Your task to perform on an android device: What's the weather going to be tomorrow? Image 0: 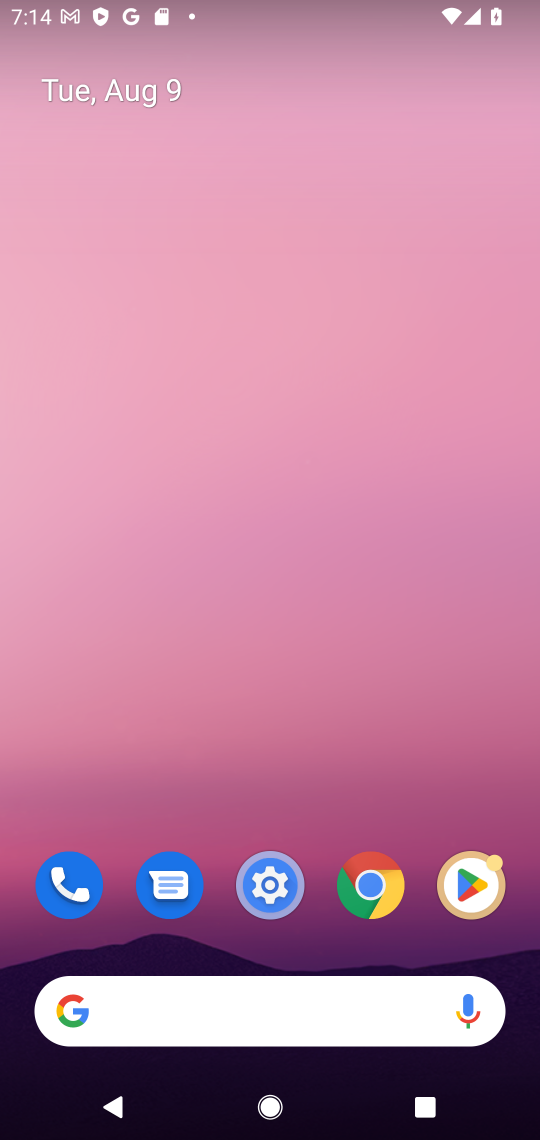
Step 0: drag from (312, 669) to (358, 21)
Your task to perform on an android device: What's the weather going to be tomorrow? Image 1: 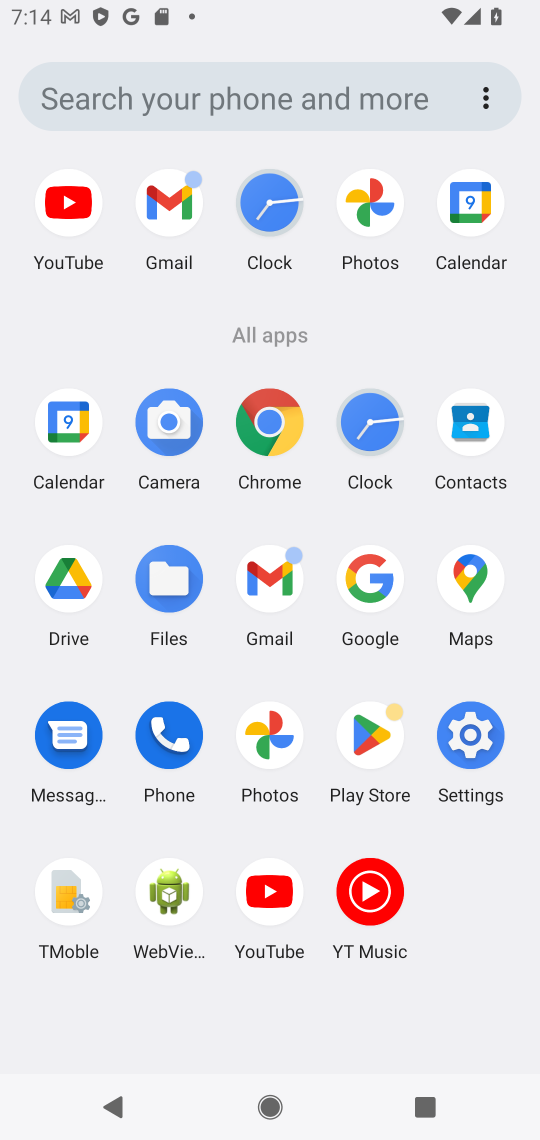
Step 1: click (236, 1139)
Your task to perform on an android device: What's the weather going to be tomorrow? Image 2: 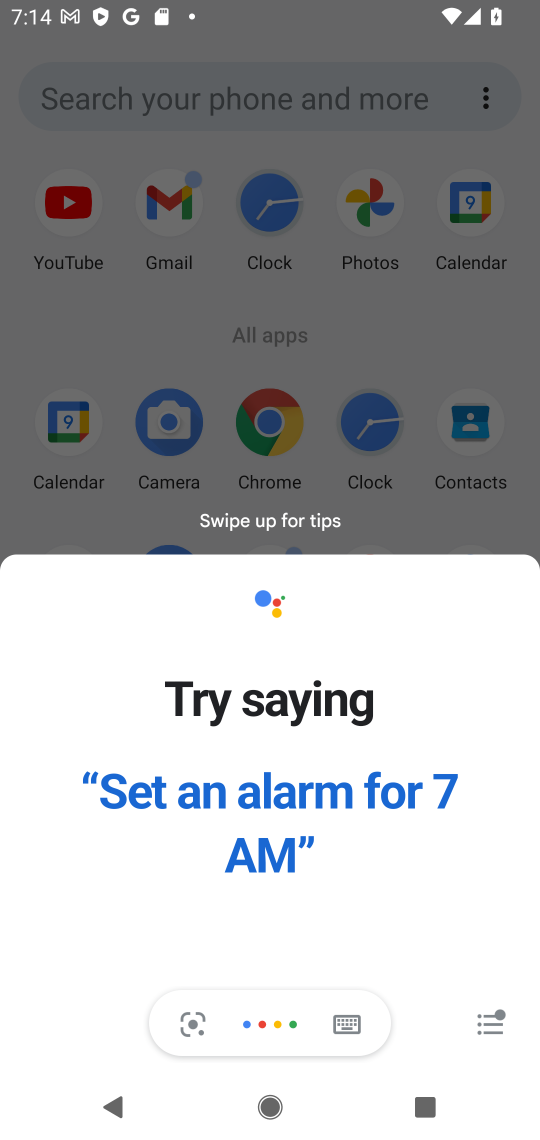
Step 2: click (270, 417)
Your task to perform on an android device: What's the weather going to be tomorrow? Image 3: 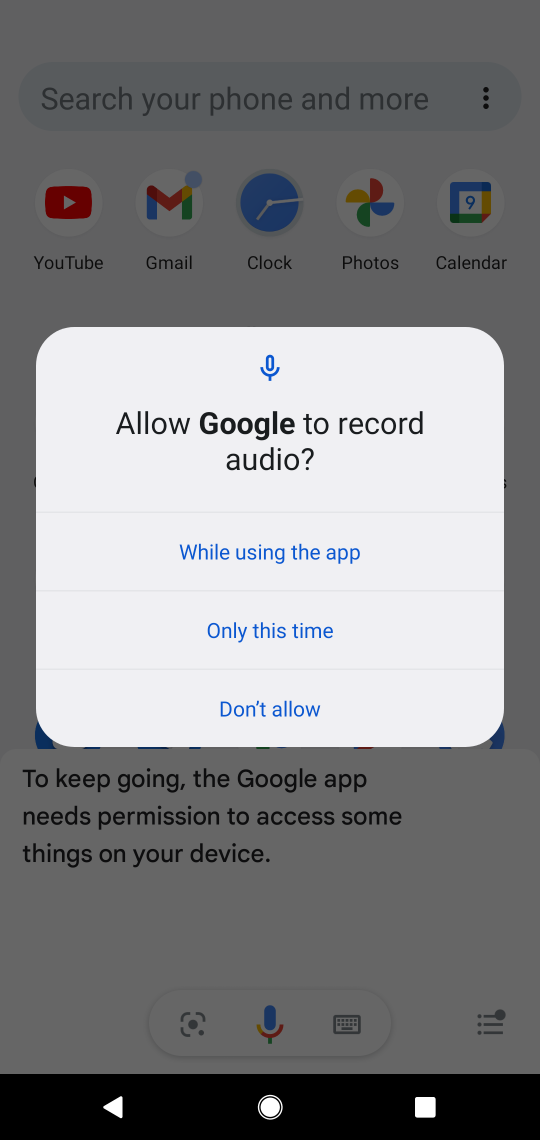
Step 3: click (270, 417)
Your task to perform on an android device: What's the weather going to be tomorrow? Image 4: 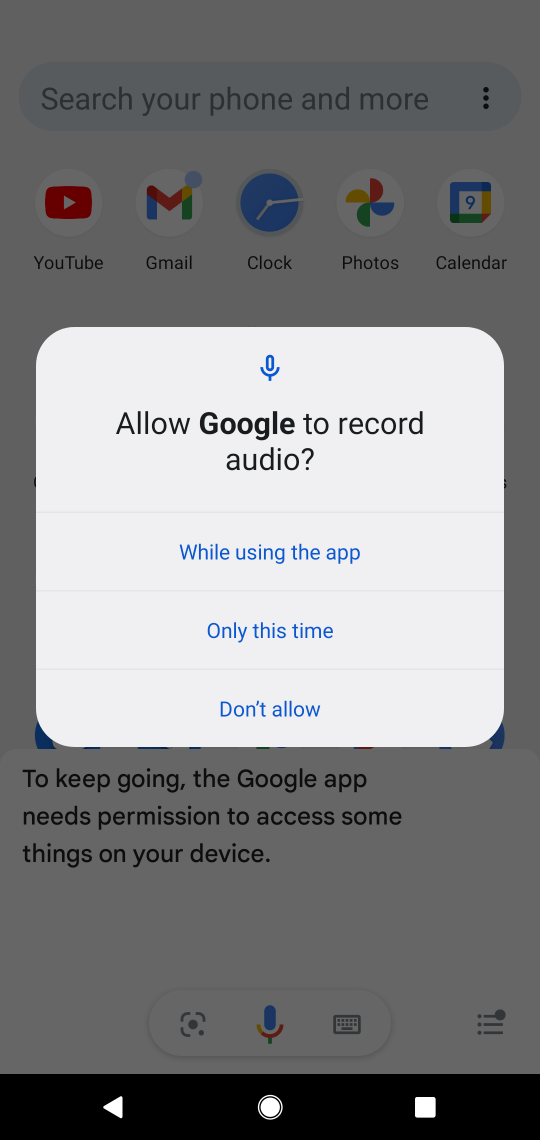
Step 4: click (279, 626)
Your task to perform on an android device: What's the weather going to be tomorrow? Image 5: 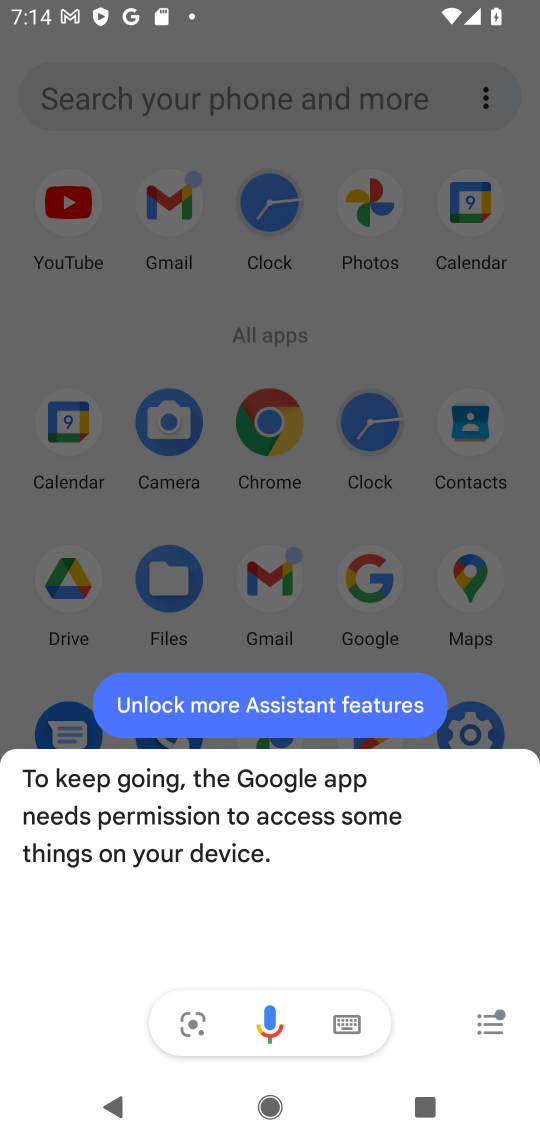
Step 5: click (272, 134)
Your task to perform on an android device: What's the weather going to be tomorrow? Image 6: 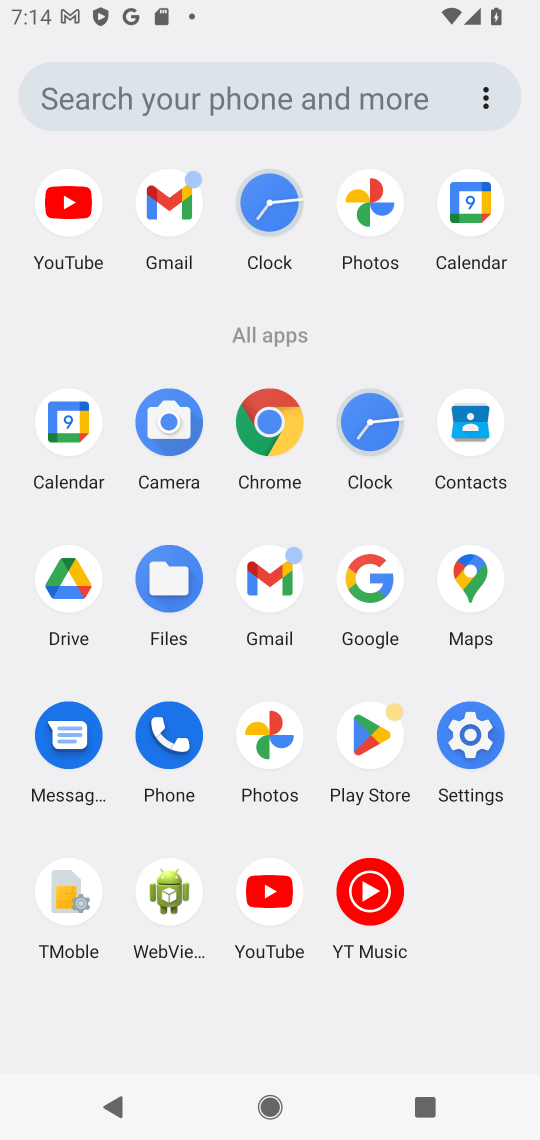
Step 6: click (271, 443)
Your task to perform on an android device: What's the weather going to be tomorrow? Image 7: 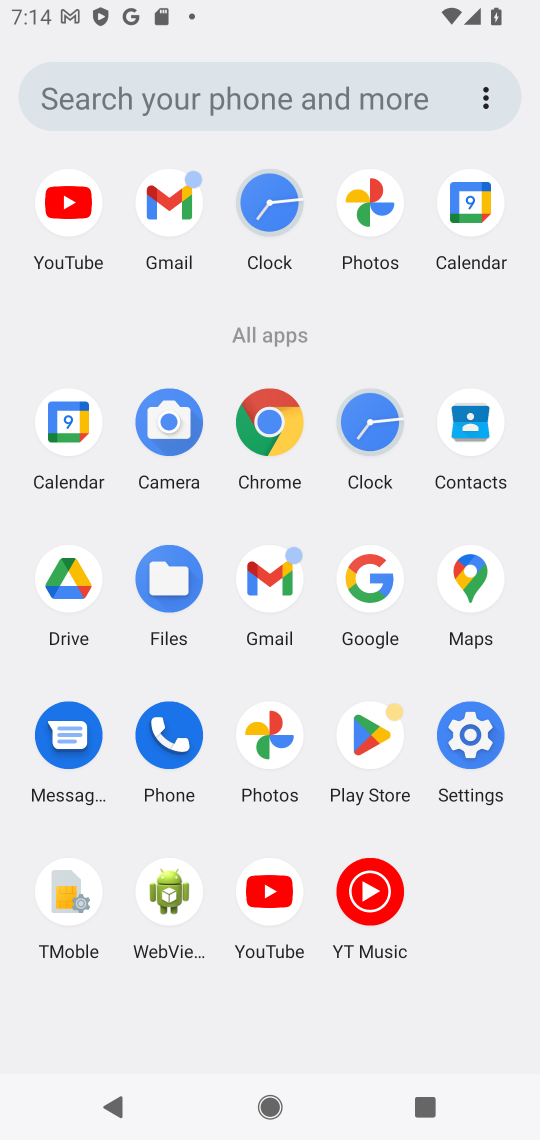
Step 7: click (271, 443)
Your task to perform on an android device: What's the weather going to be tomorrow? Image 8: 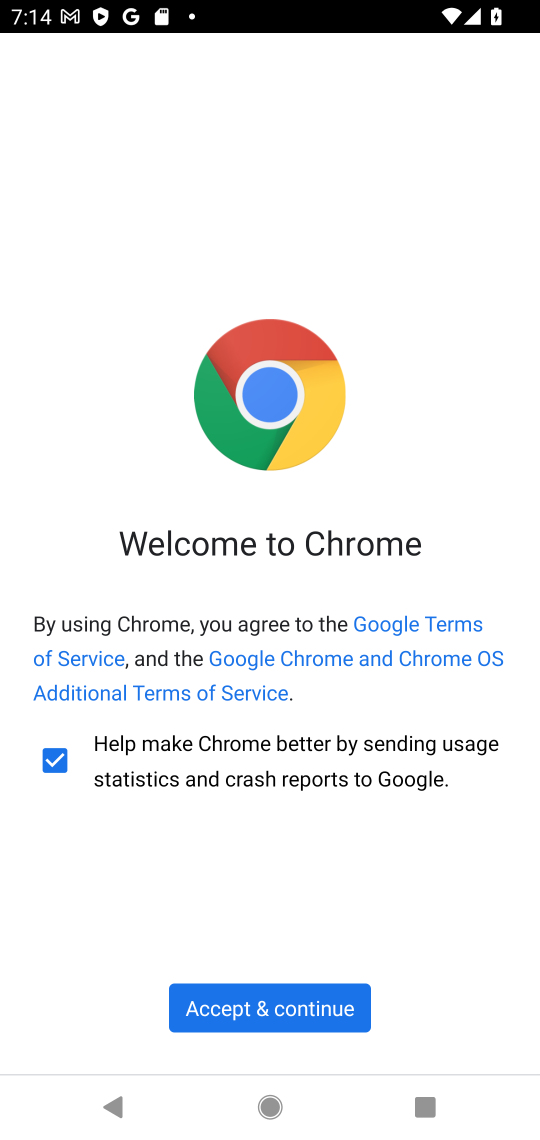
Step 8: click (293, 999)
Your task to perform on an android device: What's the weather going to be tomorrow? Image 9: 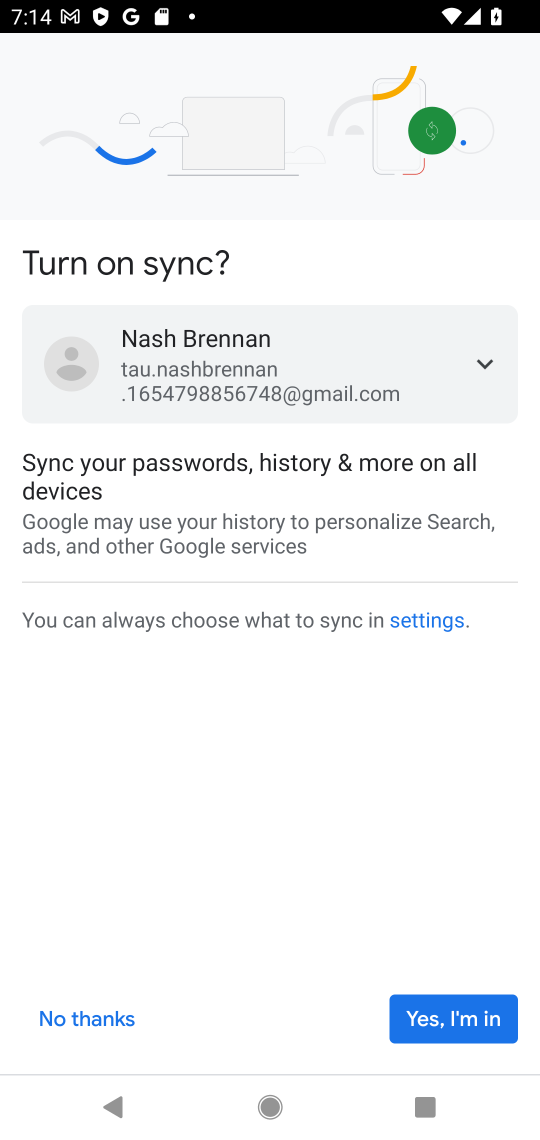
Step 9: click (451, 1022)
Your task to perform on an android device: What's the weather going to be tomorrow? Image 10: 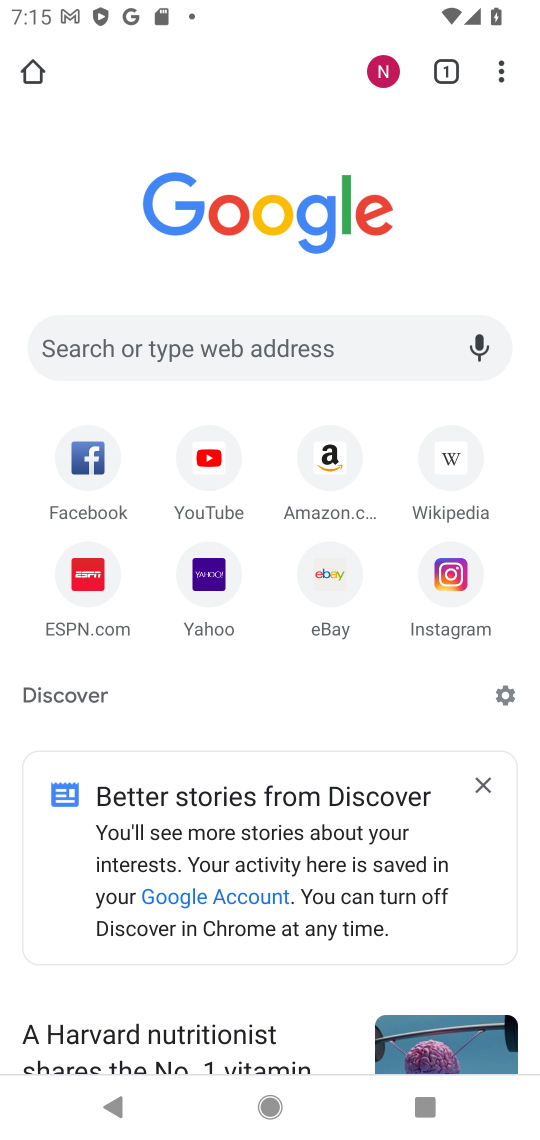
Step 10: click (216, 356)
Your task to perform on an android device: What's the weather going to be tomorrow? Image 11: 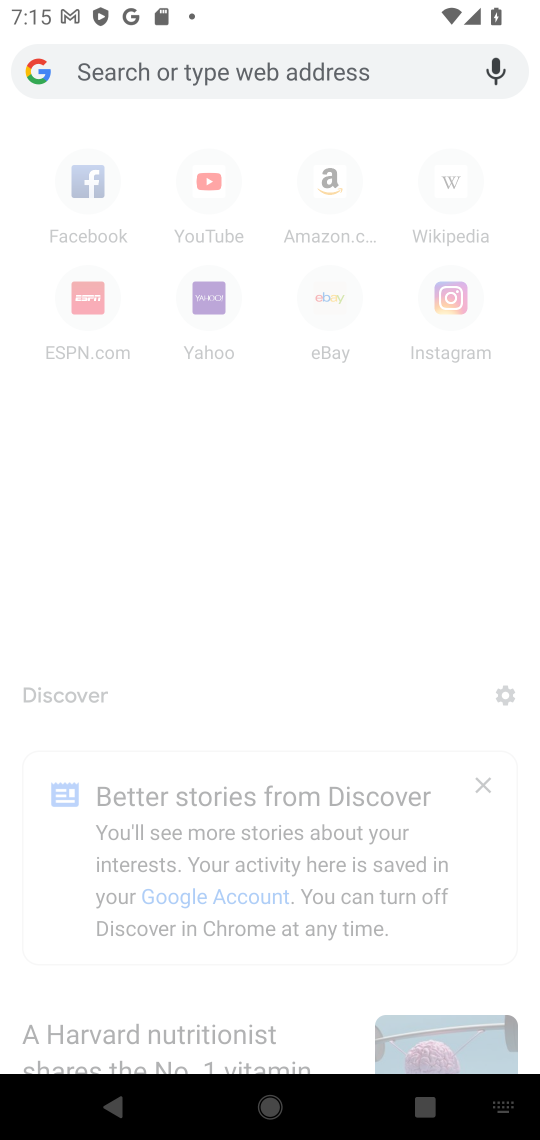
Step 11: type "What's the weather going to be tomorrow?"
Your task to perform on an android device: What's the weather going to be tomorrow? Image 12: 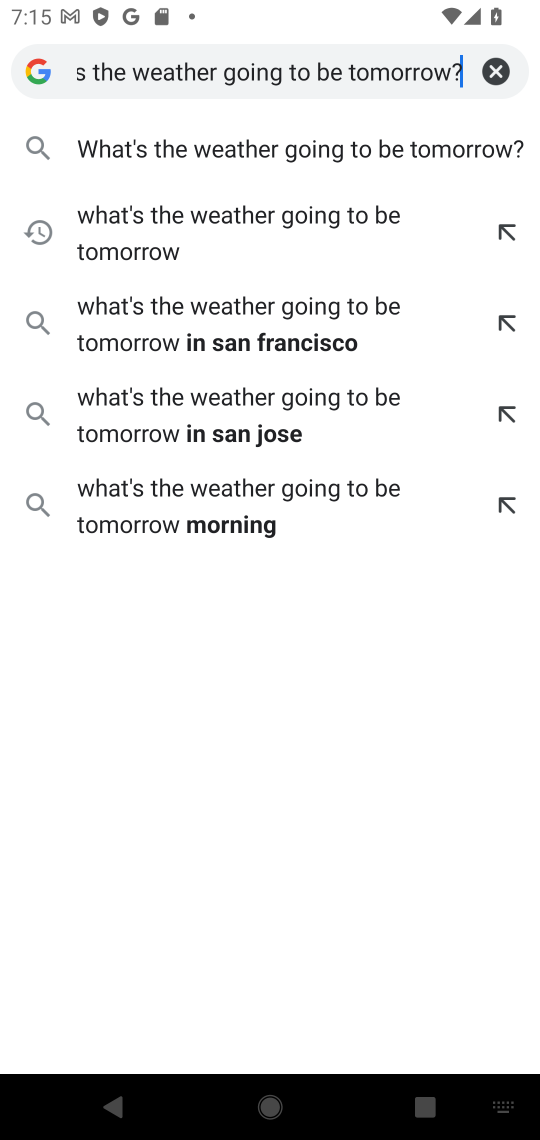
Step 12: click (342, 74)
Your task to perform on an android device: What's the weather going to be tomorrow? Image 13: 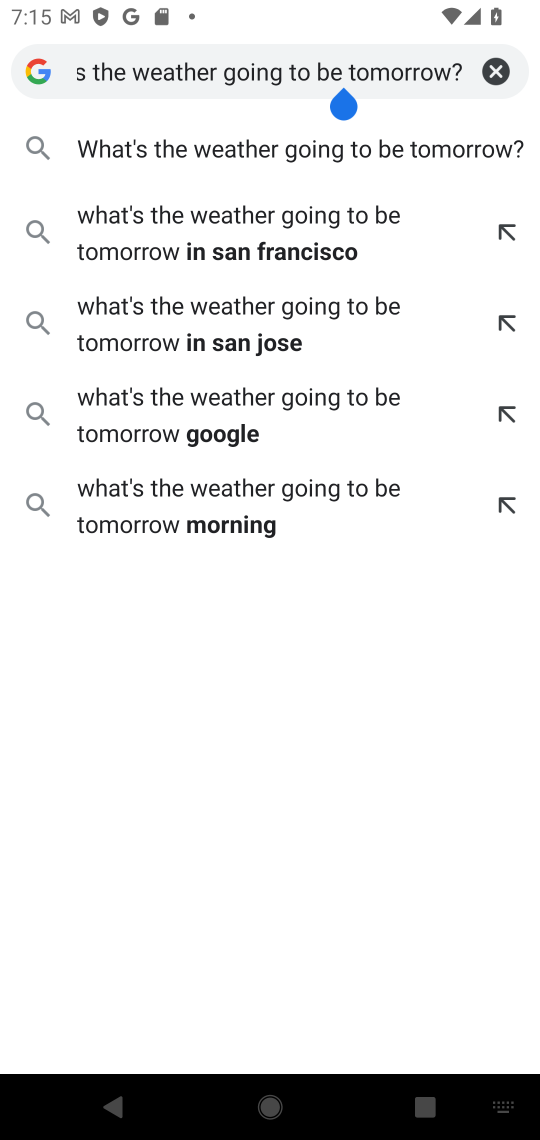
Step 13: press enter
Your task to perform on an android device: What's the weather going to be tomorrow? Image 14: 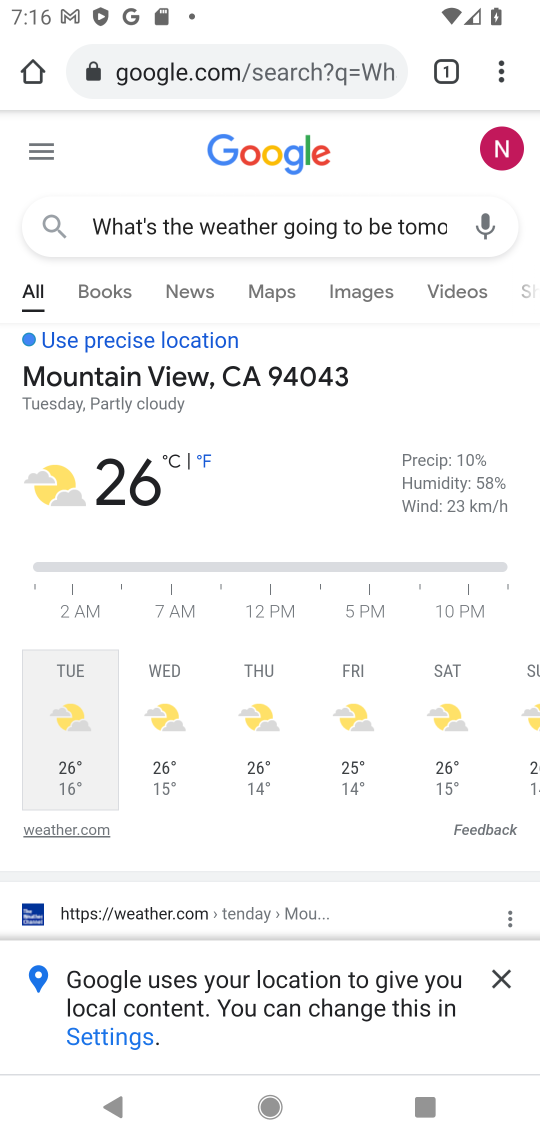
Step 14: task complete